Your task to perform on an android device: open chrome privacy settings Image 0: 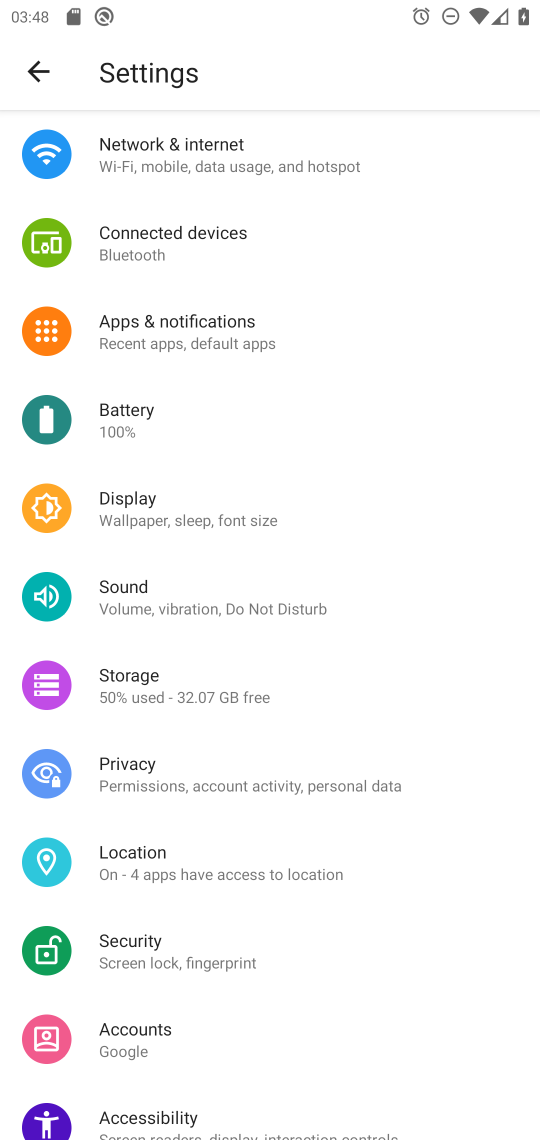
Step 0: press home button
Your task to perform on an android device: open chrome privacy settings Image 1: 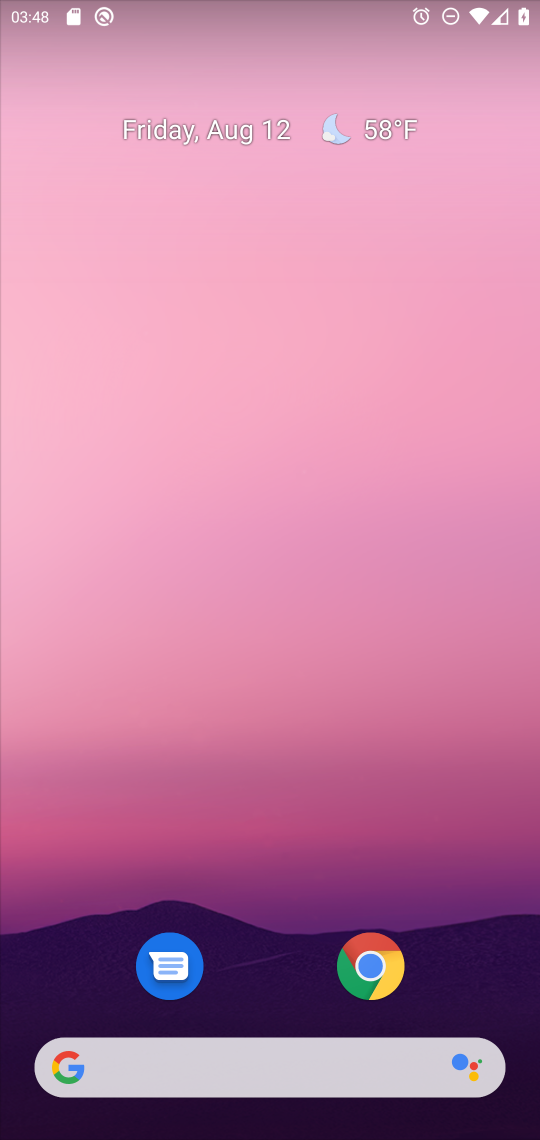
Step 1: drag from (278, 817) to (232, 27)
Your task to perform on an android device: open chrome privacy settings Image 2: 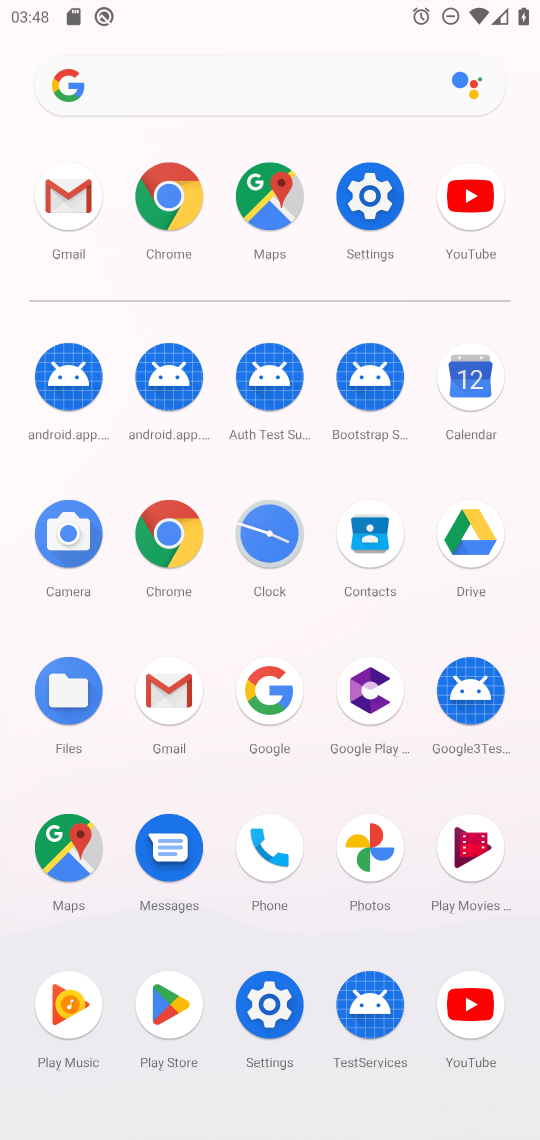
Step 2: click (177, 530)
Your task to perform on an android device: open chrome privacy settings Image 3: 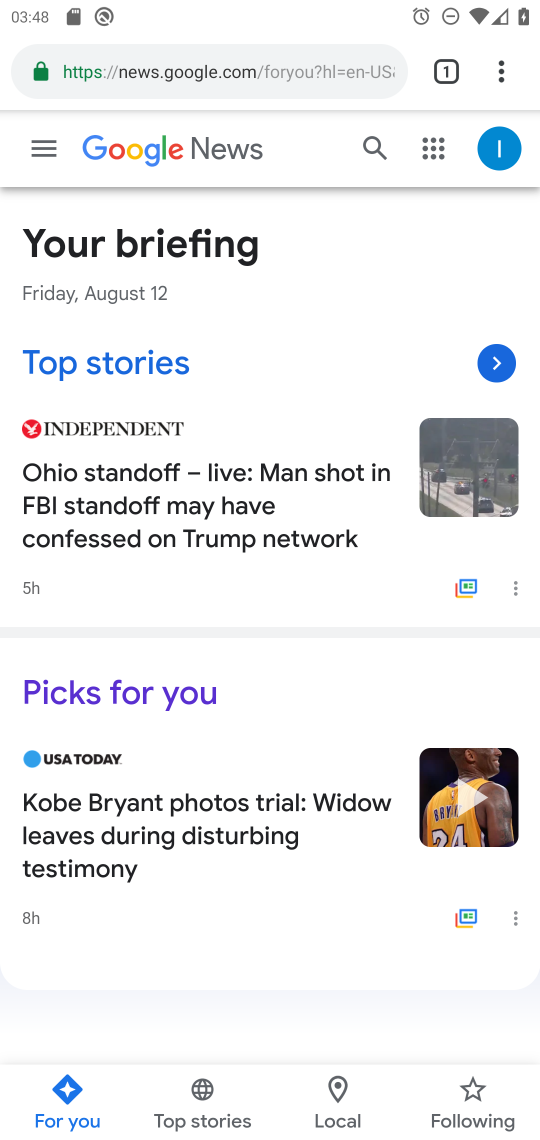
Step 3: drag from (517, 64) to (255, 881)
Your task to perform on an android device: open chrome privacy settings Image 4: 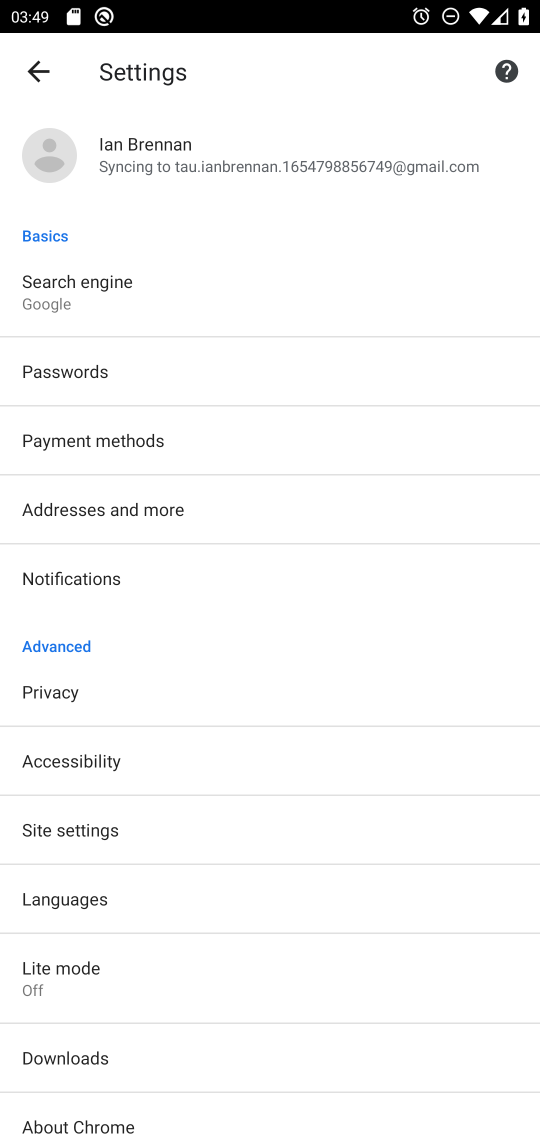
Step 4: drag from (250, 967) to (326, 450)
Your task to perform on an android device: open chrome privacy settings Image 5: 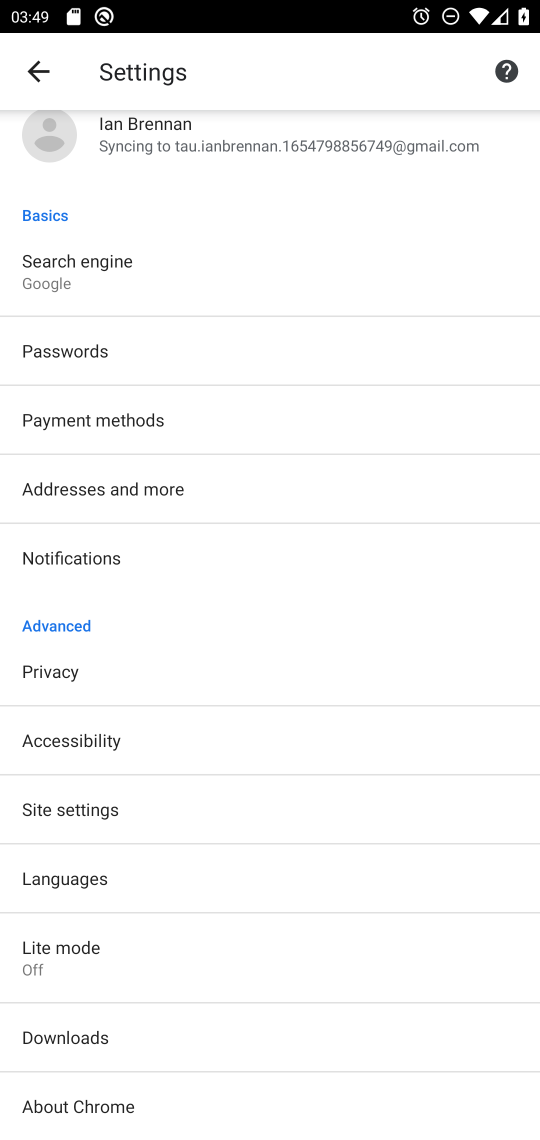
Step 5: click (42, 662)
Your task to perform on an android device: open chrome privacy settings Image 6: 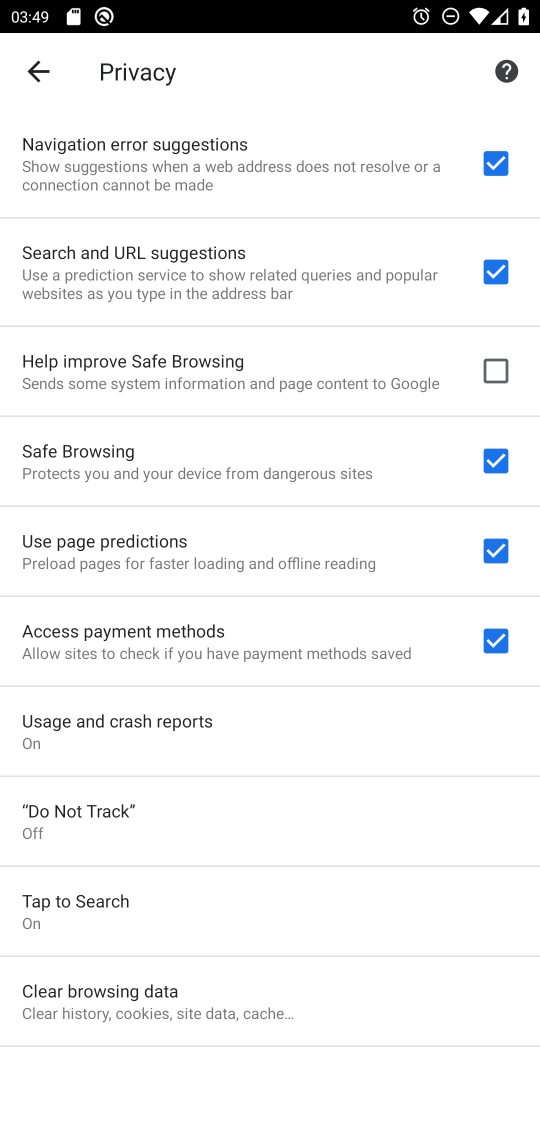
Step 6: task complete